Your task to perform on an android device: Open Youtube and go to the subscriptions tab Image 0: 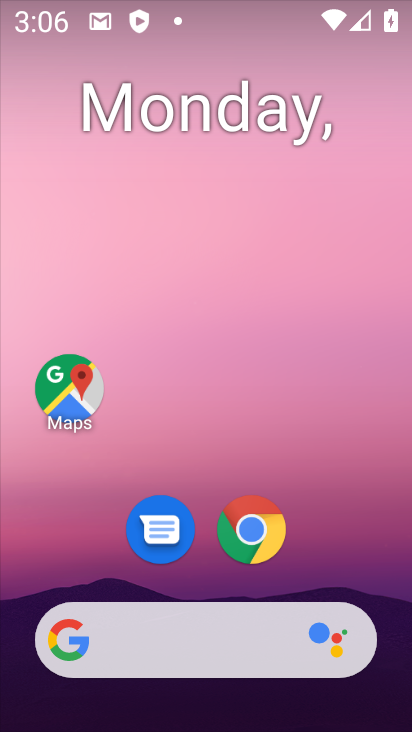
Step 0: drag from (222, 561) to (317, 12)
Your task to perform on an android device: Open Youtube and go to the subscriptions tab Image 1: 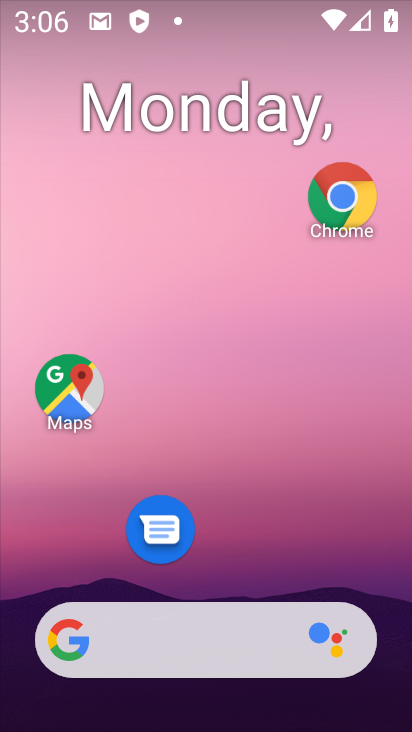
Step 1: drag from (235, 570) to (259, 36)
Your task to perform on an android device: Open Youtube and go to the subscriptions tab Image 2: 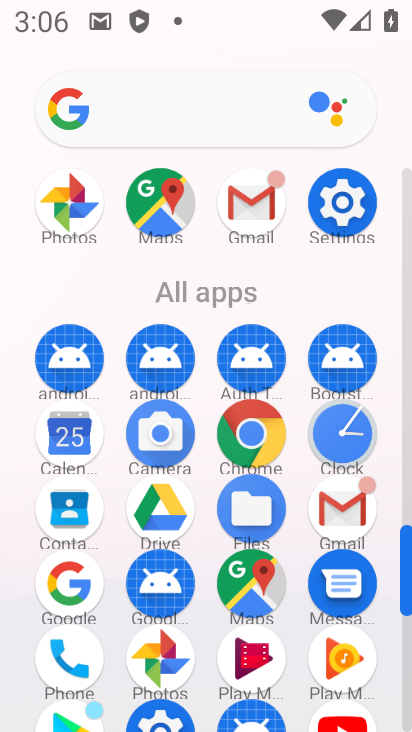
Step 2: drag from (265, 617) to (320, 308)
Your task to perform on an android device: Open Youtube and go to the subscriptions tab Image 3: 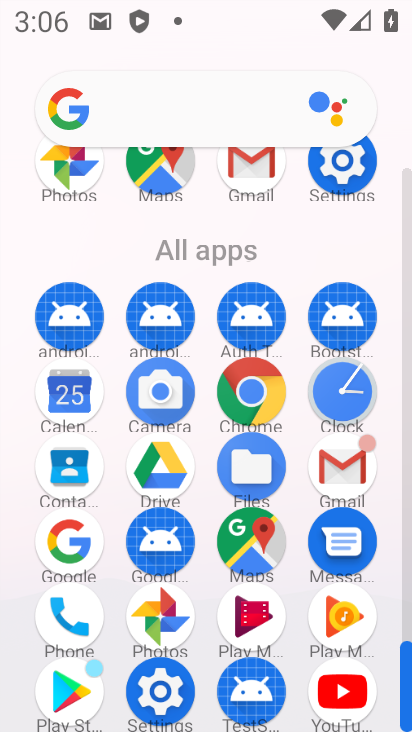
Step 3: click (351, 674)
Your task to perform on an android device: Open Youtube and go to the subscriptions tab Image 4: 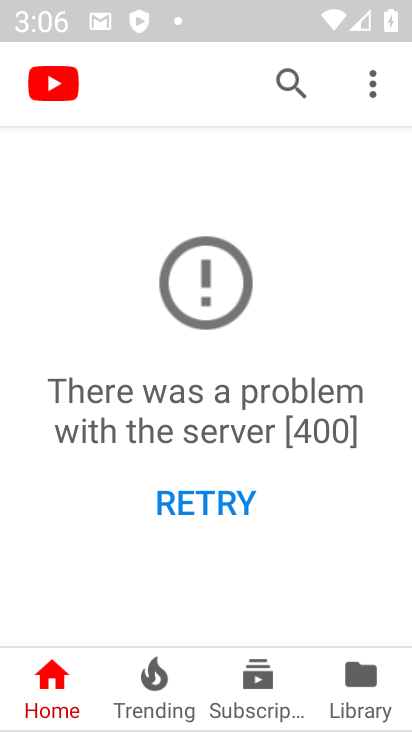
Step 4: click (277, 684)
Your task to perform on an android device: Open Youtube and go to the subscriptions tab Image 5: 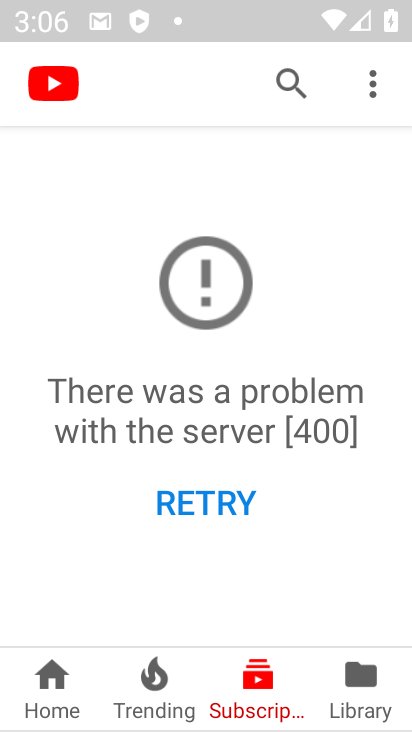
Step 5: click (276, 680)
Your task to perform on an android device: Open Youtube and go to the subscriptions tab Image 6: 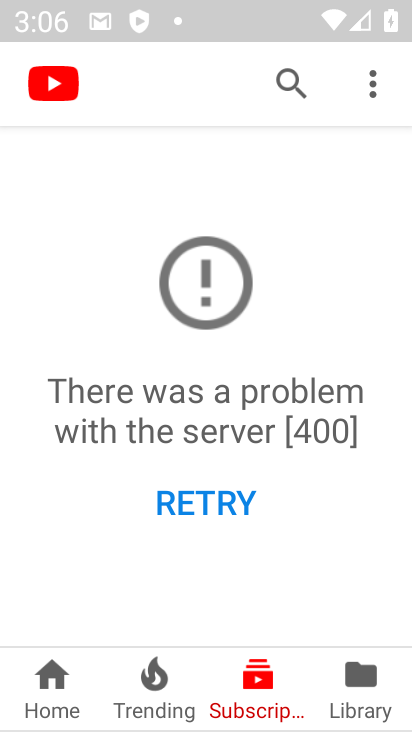
Step 6: task complete